Your task to perform on an android device: change your default location settings in chrome Image 0: 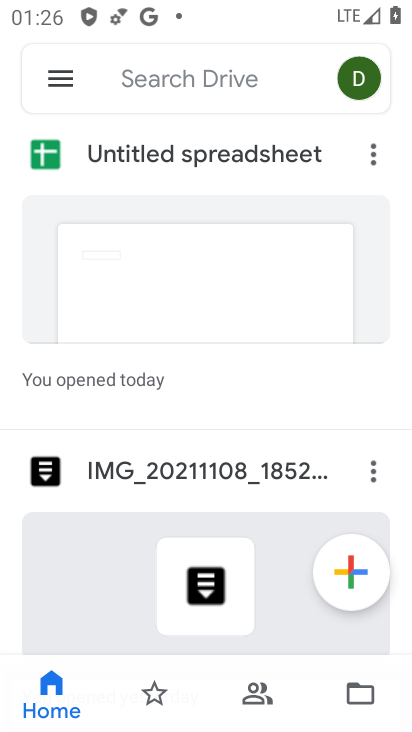
Step 0: press home button
Your task to perform on an android device: change your default location settings in chrome Image 1: 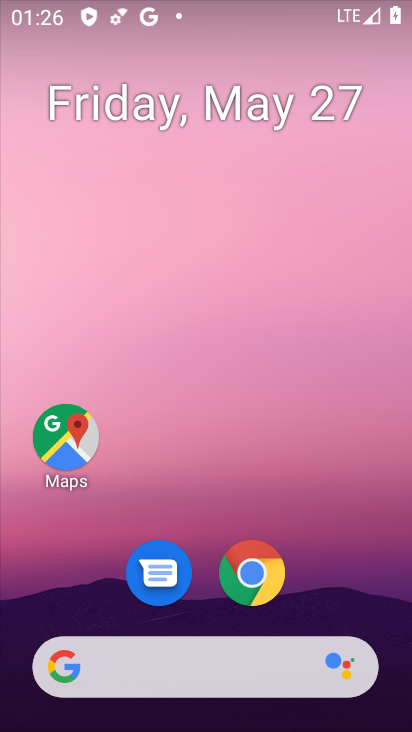
Step 1: drag from (206, 611) to (0, 597)
Your task to perform on an android device: change your default location settings in chrome Image 2: 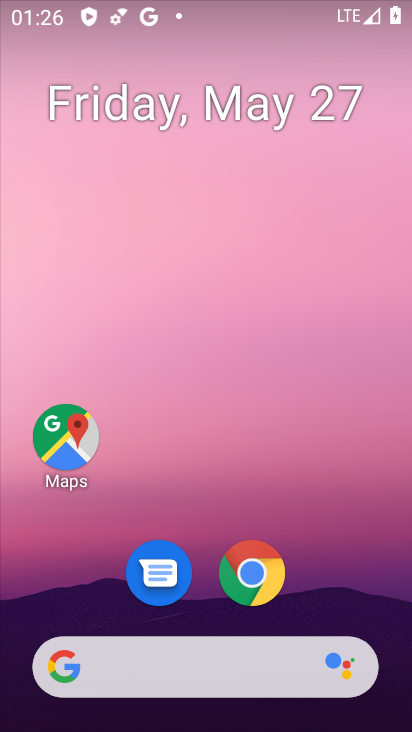
Step 2: click (247, 419)
Your task to perform on an android device: change your default location settings in chrome Image 3: 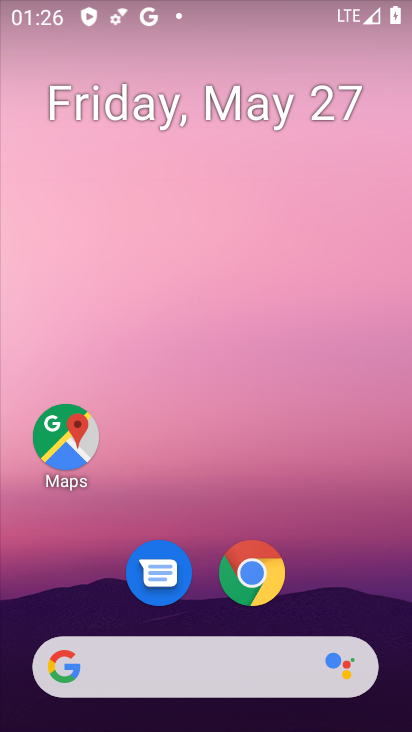
Step 3: click (268, 584)
Your task to perform on an android device: change your default location settings in chrome Image 4: 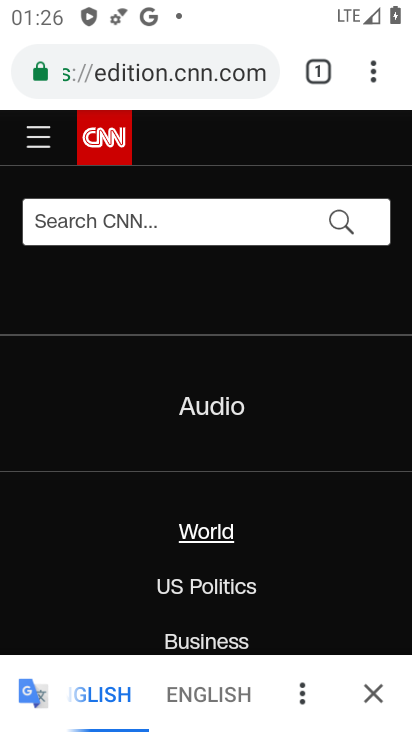
Step 4: press home button
Your task to perform on an android device: change your default location settings in chrome Image 5: 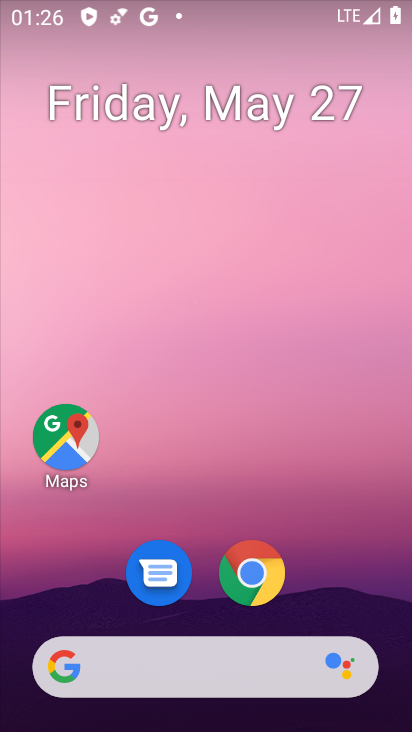
Step 5: click (255, 578)
Your task to perform on an android device: change your default location settings in chrome Image 6: 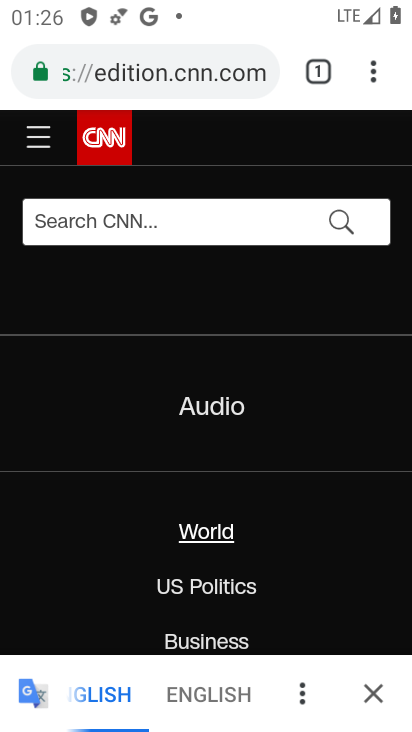
Step 6: click (369, 78)
Your task to perform on an android device: change your default location settings in chrome Image 7: 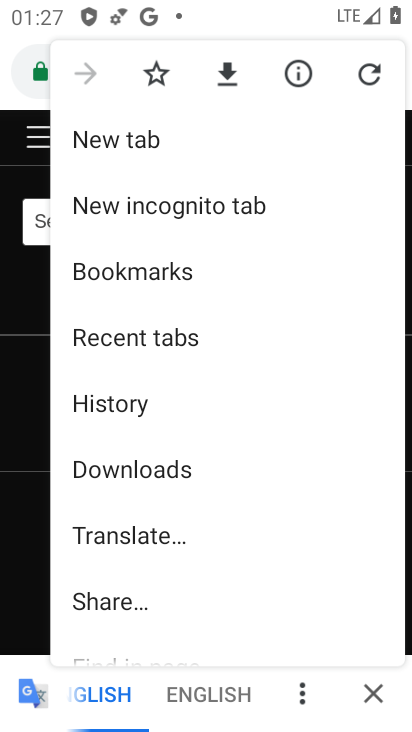
Step 7: drag from (204, 466) to (120, 56)
Your task to perform on an android device: change your default location settings in chrome Image 8: 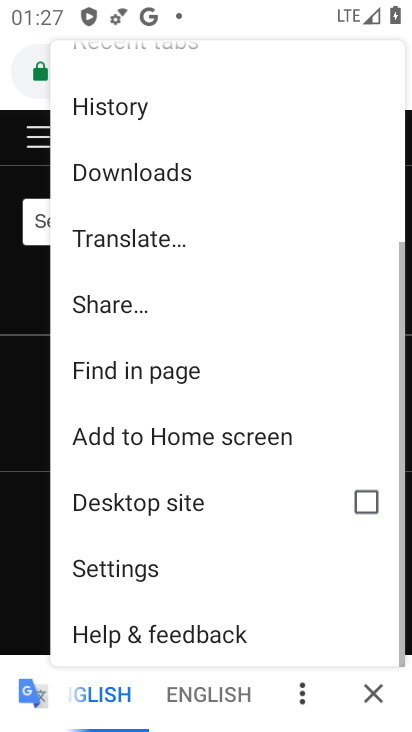
Step 8: click (147, 571)
Your task to perform on an android device: change your default location settings in chrome Image 9: 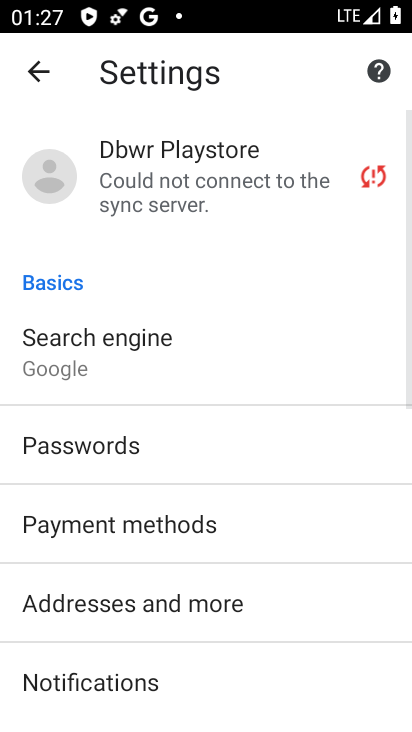
Step 9: click (160, 366)
Your task to perform on an android device: change your default location settings in chrome Image 10: 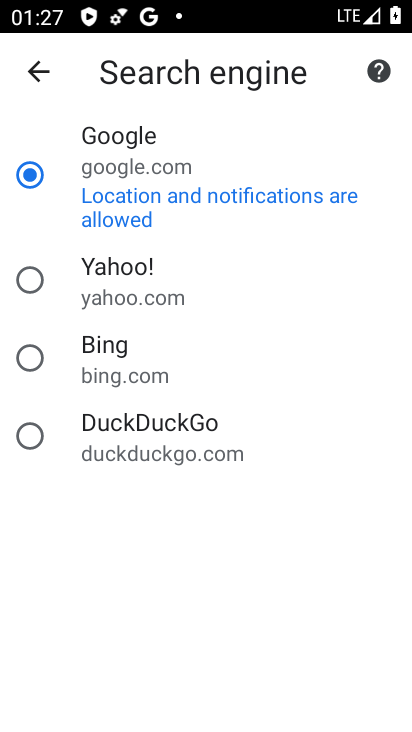
Step 10: click (43, 178)
Your task to perform on an android device: change your default location settings in chrome Image 11: 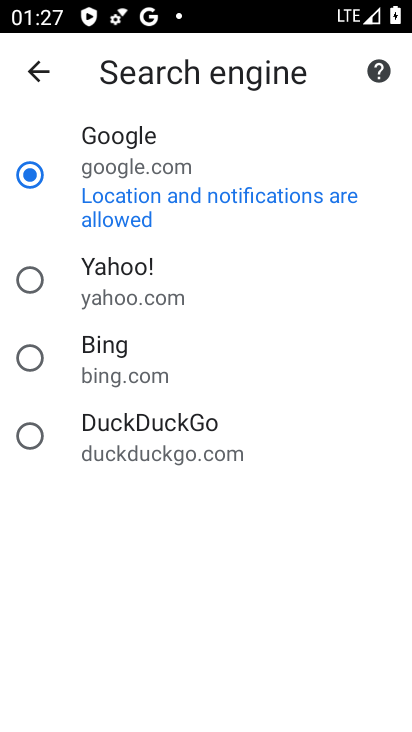
Step 11: task complete